Your task to perform on an android device: Go to Maps Image 0: 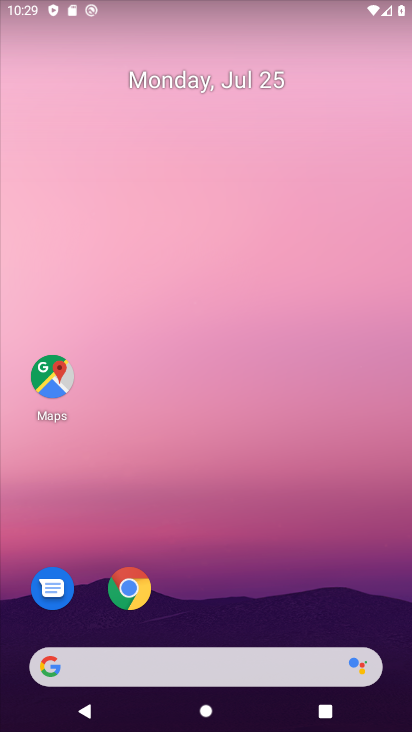
Step 0: click (49, 375)
Your task to perform on an android device: Go to Maps Image 1: 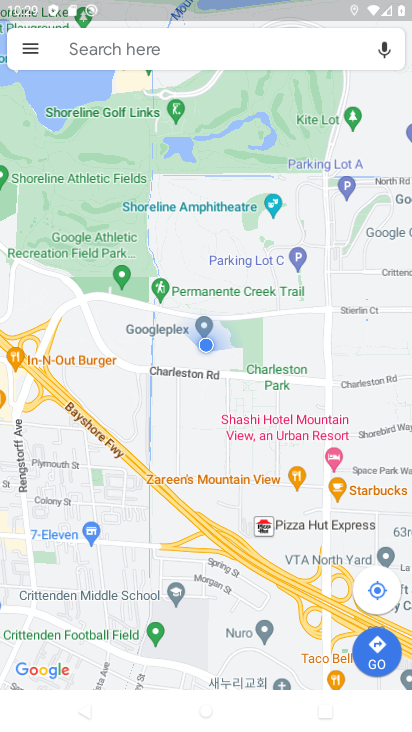
Step 1: task complete